Your task to perform on an android device: find which apps use the phone's location Image 0: 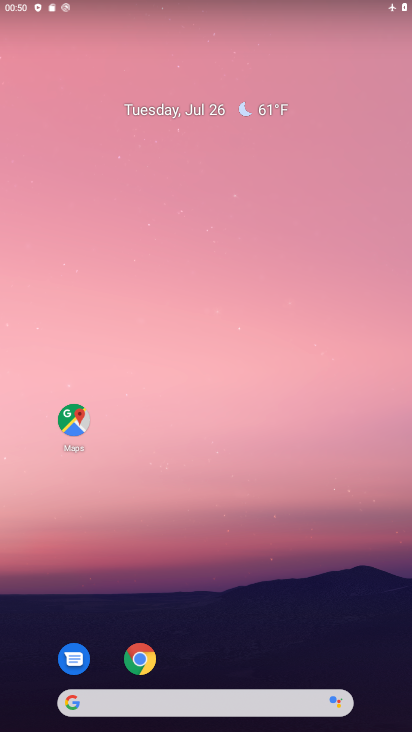
Step 0: drag from (265, 629) to (269, 50)
Your task to perform on an android device: find which apps use the phone's location Image 1: 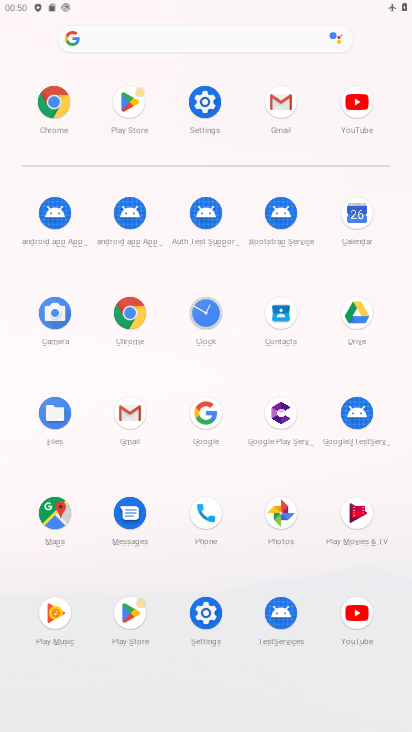
Step 1: click (201, 93)
Your task to perform on an android device: find which apps use the phone's location Image 2: 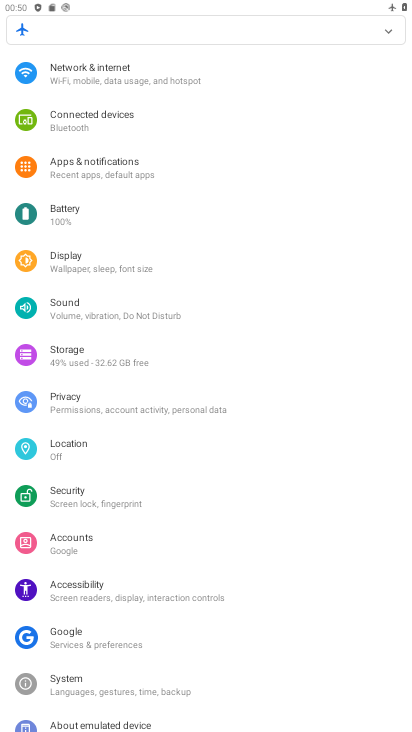
Step 2: click (94, 448)
Your task to perform on an android device: find which apps use the phone's location Image 3: 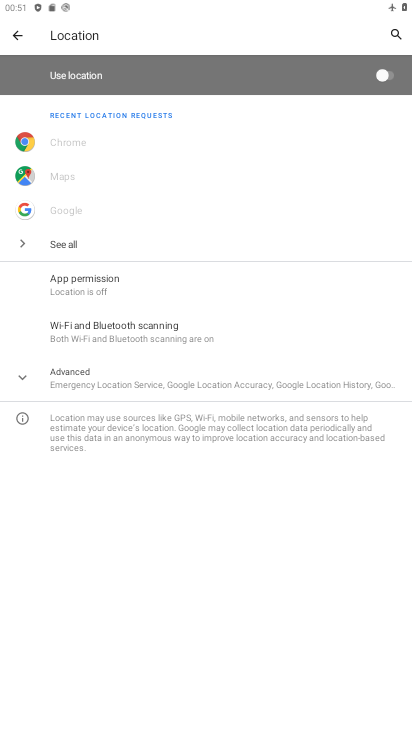
Step 3: click (92, 288)
Your task to perform on an android device: find which apps use the phone's location Image 4: 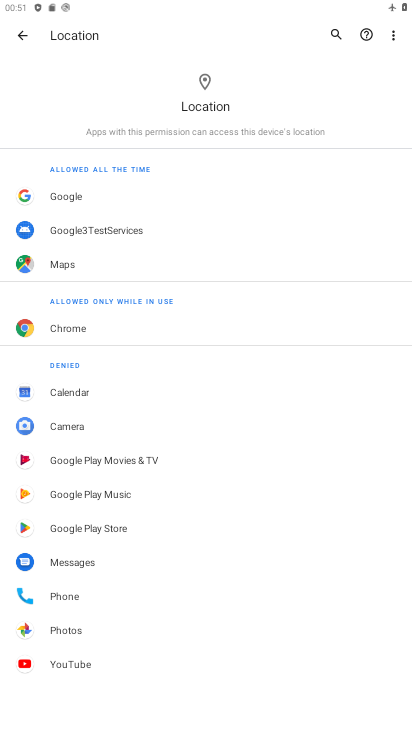
Step 4: task complete